Your task to perform on an android device: change alarm snooze length Image 0: 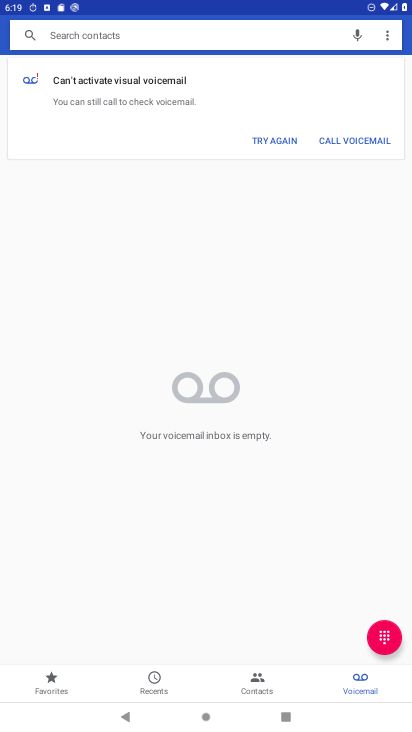
Step 0: press home button
Your task to perform on an android device: change alarm snooze length Image 1: 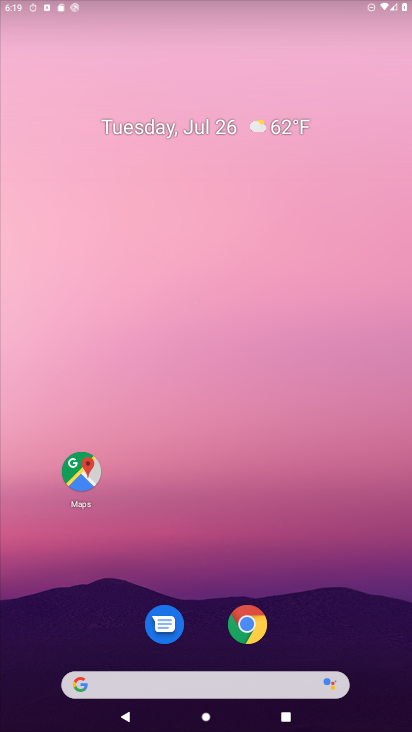
Step 1: drag from (239, 687) to (308, 0)
Your task to perform on an android device: change alarm snooze length Image 2: 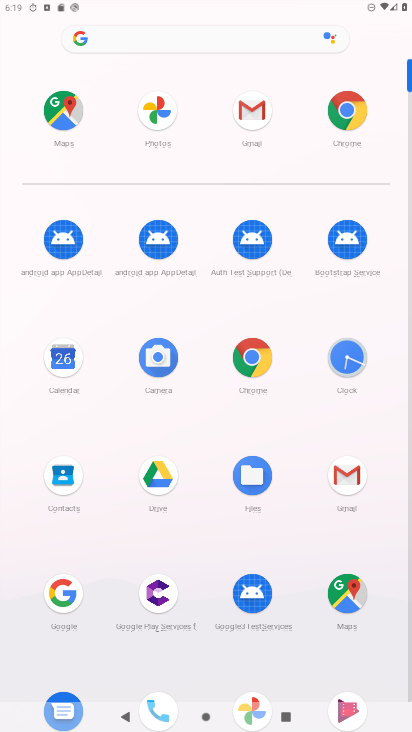
Step 2: click (350, 364)
Your task to perform on an android device: change alarm snooze length Image 3: 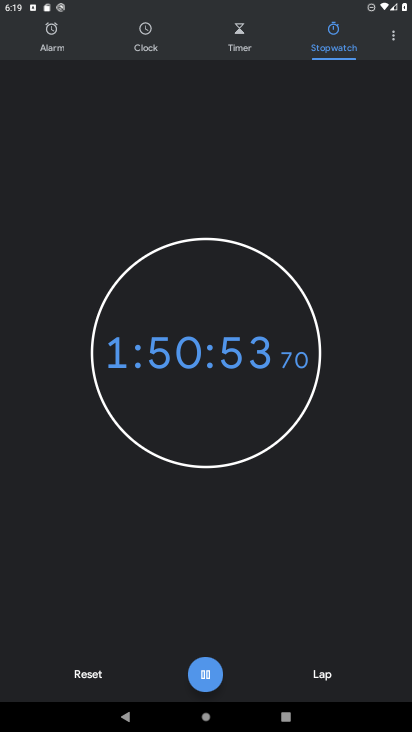
Step 3: click (396, 30)
Your task to perform on an android device: change alarm snooze length Image 4: 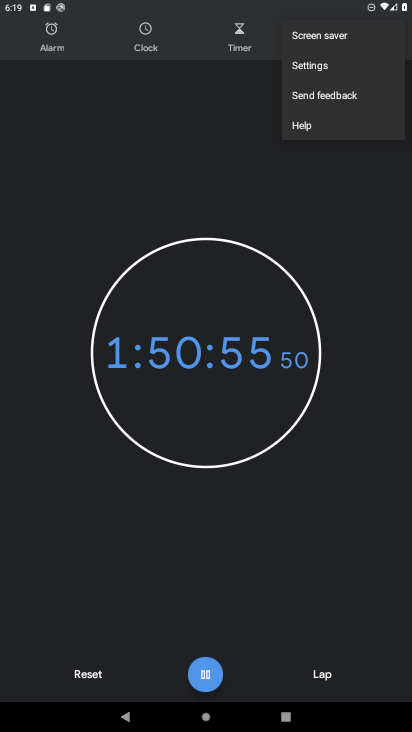
Step 4: click (337, 68)
Your task to perform on an android device: change alarm snooze length Image 5: 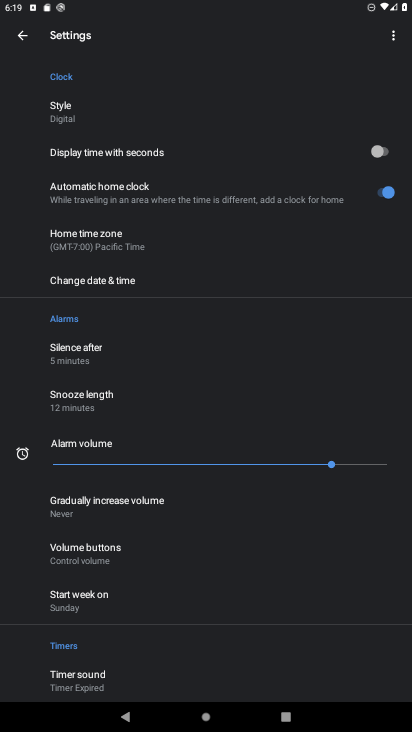
Step 5: click (127, 398)
Your task to perform on an android device: change alarm snooze length Image 6: 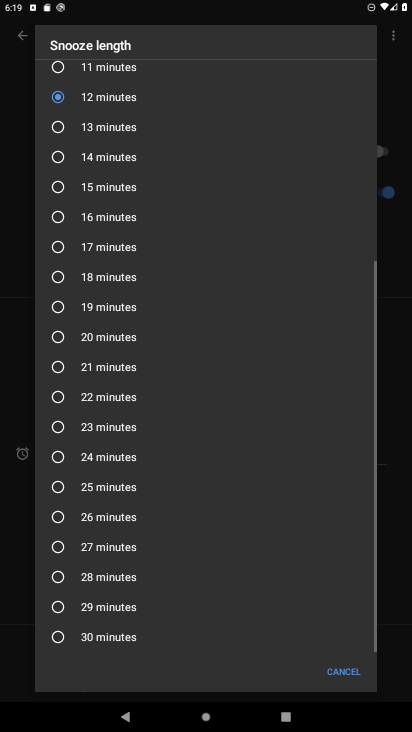
Step 6: click (69, 125)
Your task to perform on an android device: change alarm snooze length Image 7: 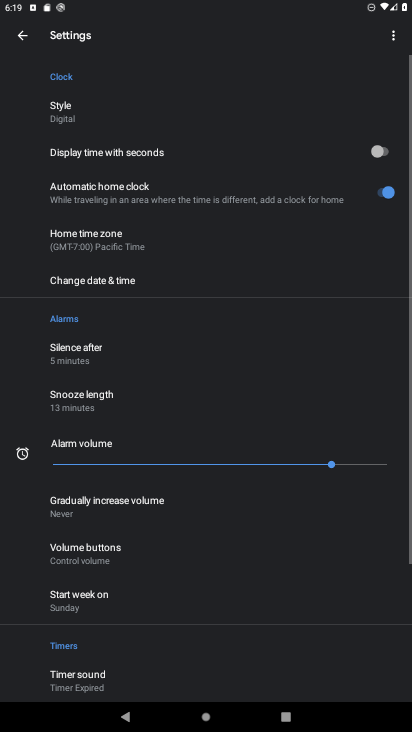
Step 7: task complete